Your task to perform on an android device: When is my next meeting? Image 0: 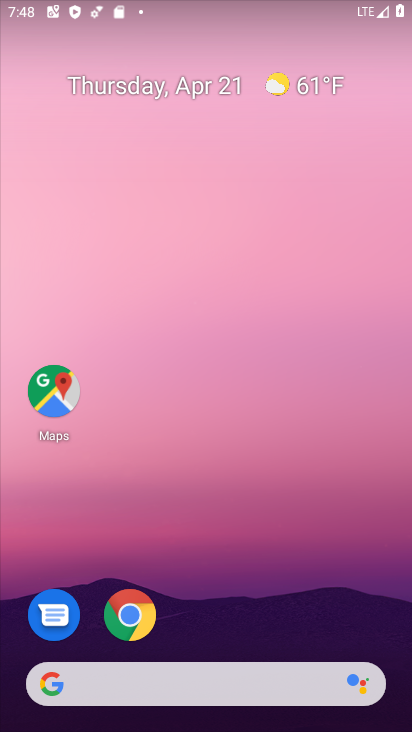
Step 0: click (243, 128)
Your task to perform on an android device: When is my next meeting? Image 1: 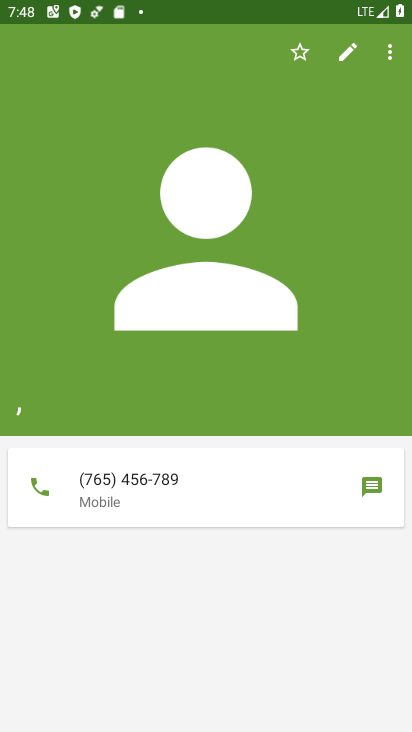
Step 1: drag from (240, 670) to (227, 195)
Your task to perform on an android device: When is my next meeting? Image 2: 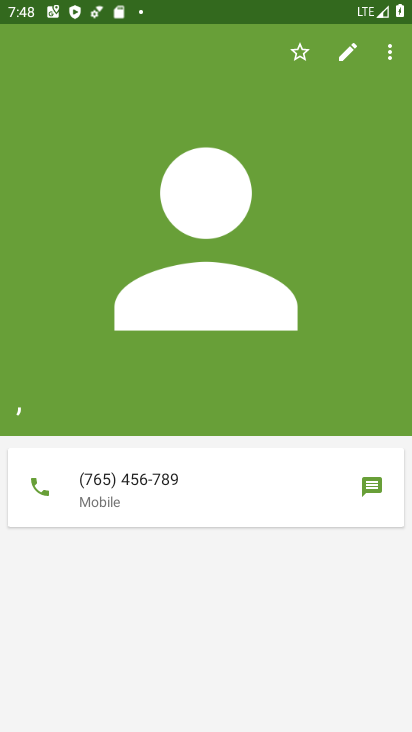
Step 2: press home button
Your task to perform on an android device: When is my next meeting? Image 3: 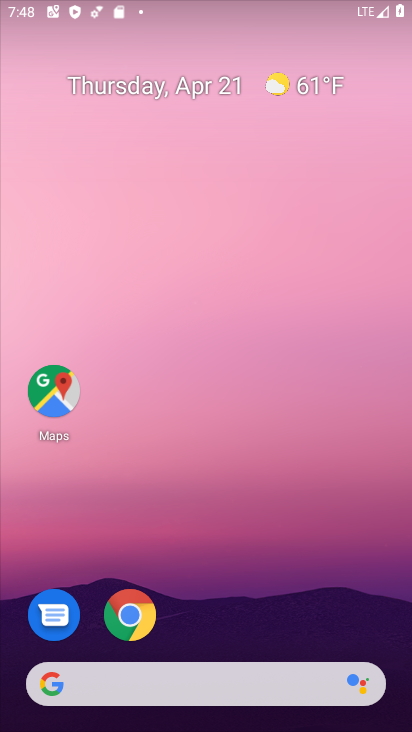
Step 3: drag from (188, 629) to (248, 81)
Your task to perform on an android device: When is my next meeting? Image 4: 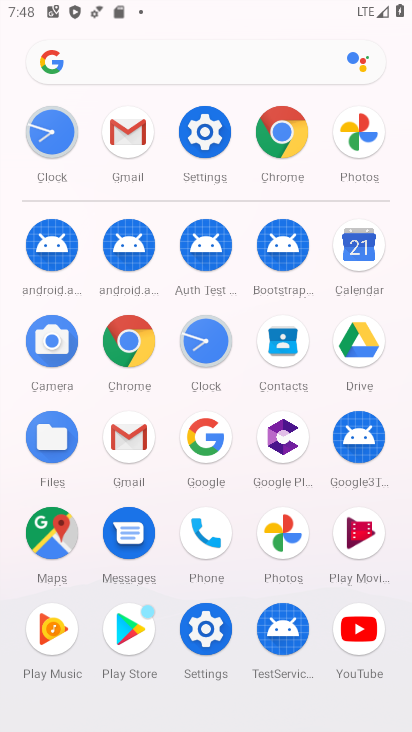
Step 4: click (358, 240)
Your task to perform on an android device: When is my next meeting? Image 5: 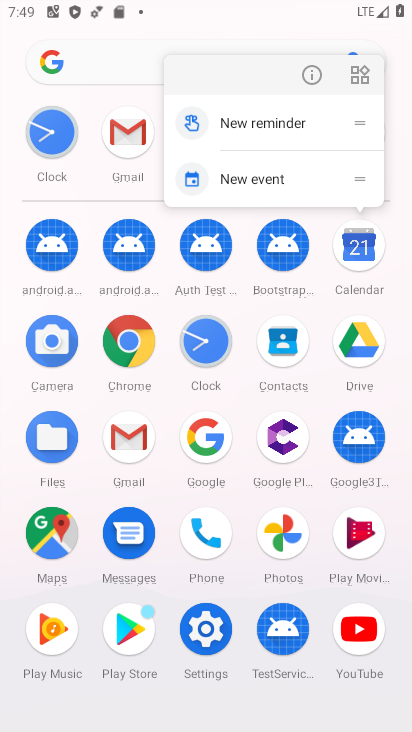
Step 5: click (309, 69)
Your task to perform on an android device: When is my next meeting? Image 6: 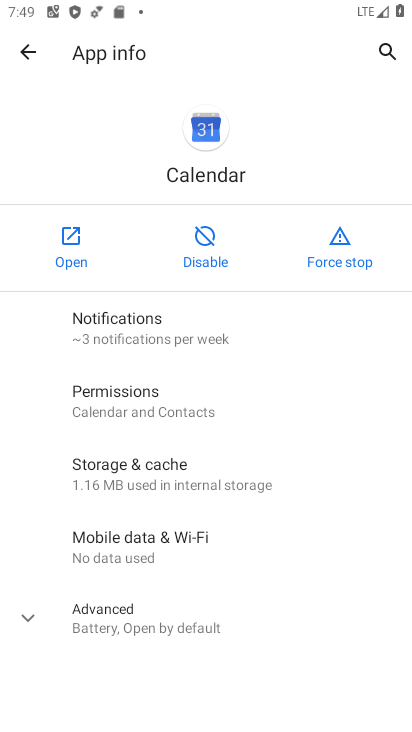
Step 6: click (72, 238)
Your task to perform on an android device: When is my next meeting? Image 7: 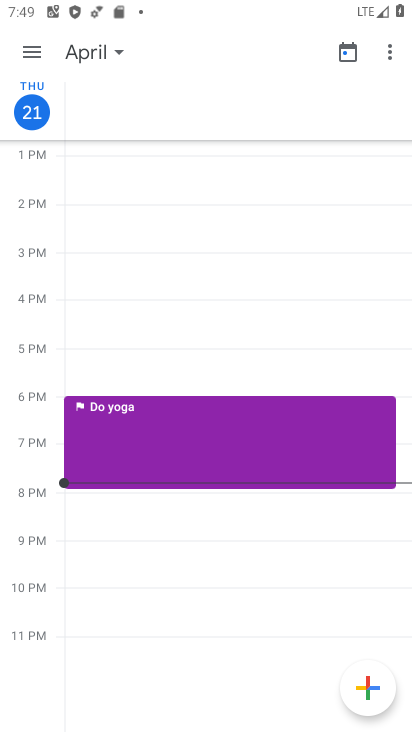
Step 7: click (92, 49)
Your task to perform on an android device: When is my next meeting? Image 8: 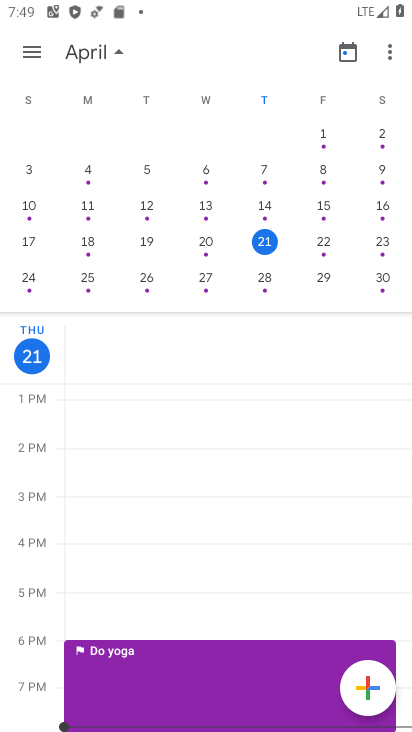
Step 8: click (94, 53)
Your task to perform on an android device: When is my next meeting? Image 9: 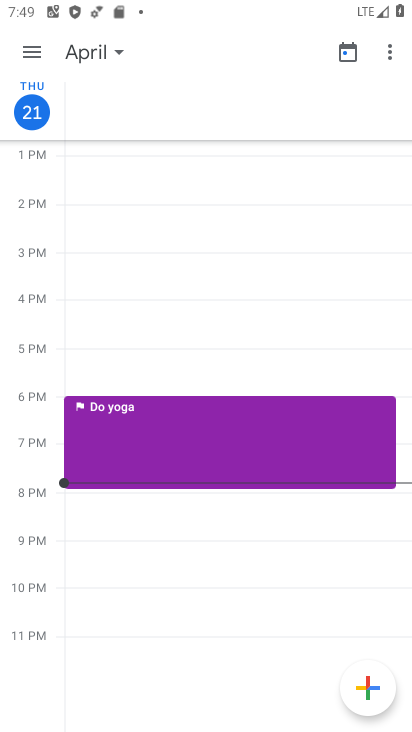
Step 9: task complete